Your task to perform on an android device: Show me recent news Image 0: 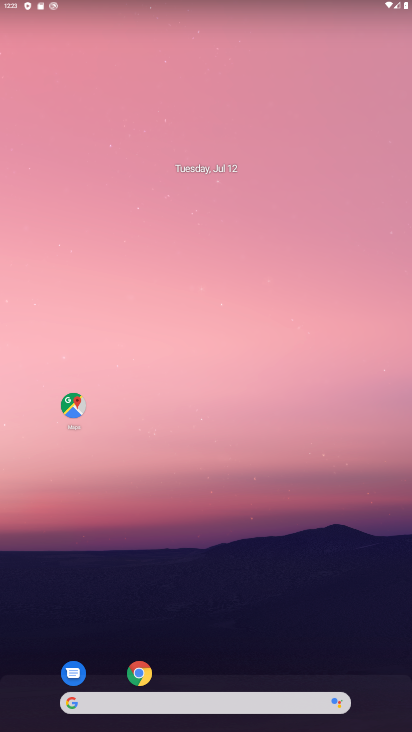
Step 0: drag from (21, 334) to (393, 330)
Your task to perform on an android device: Show me recent news Image 1: 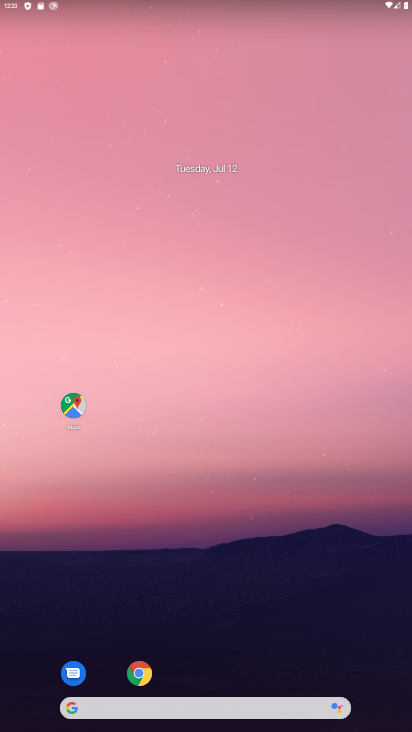
Step 1: task complete